Your task to perform on an android device: Open Wikipedia Image 0: 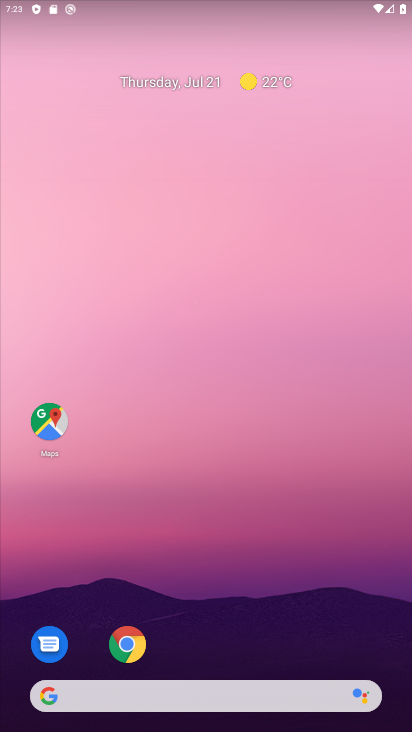
Step 0: drag from (330, 560) to (377, 161)
Your task to perform on an android device: Open Wikipedia Image 1: 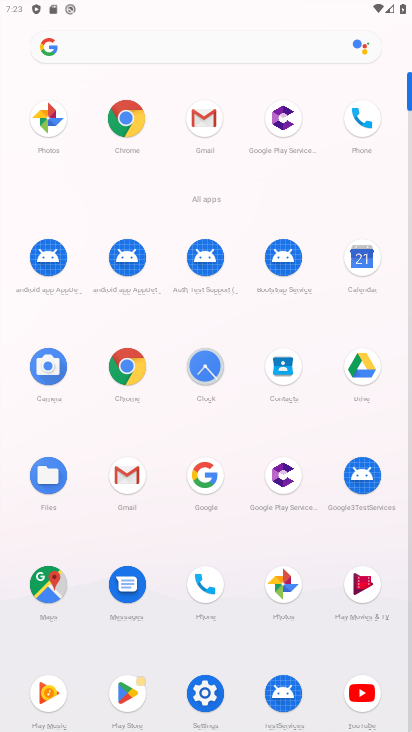
Step 1: click (127, 371)
Your task to perform on an android device: Open Wikipedia Image 2: 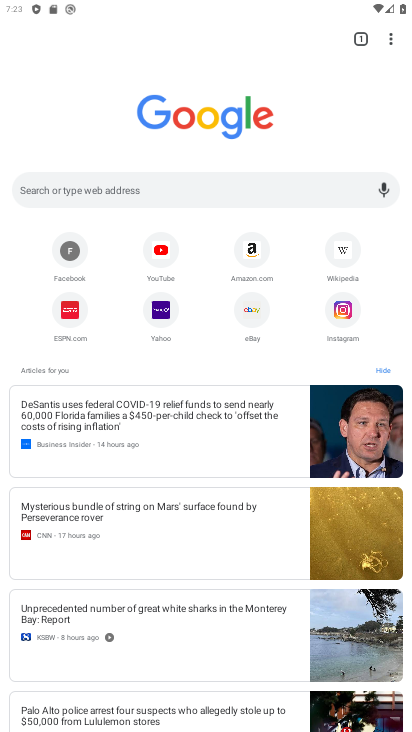
Step 2: click (181, 186)
Your task to perform on an android device: Open Wikipedia Image 3: 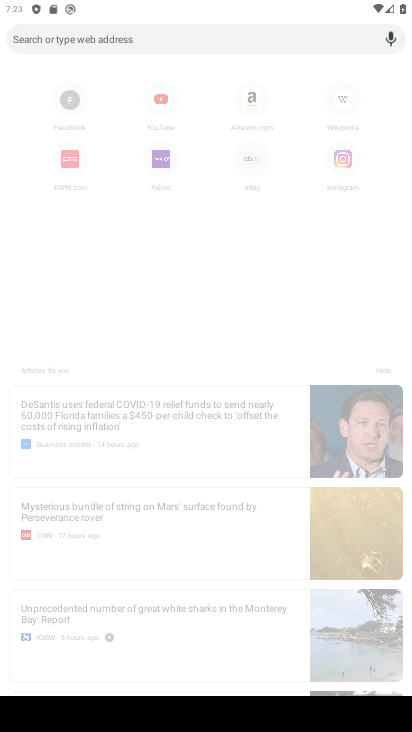
Step 3: type "wikipedia"
Your task to perform on an android device: Open Wikipedia Image 4: 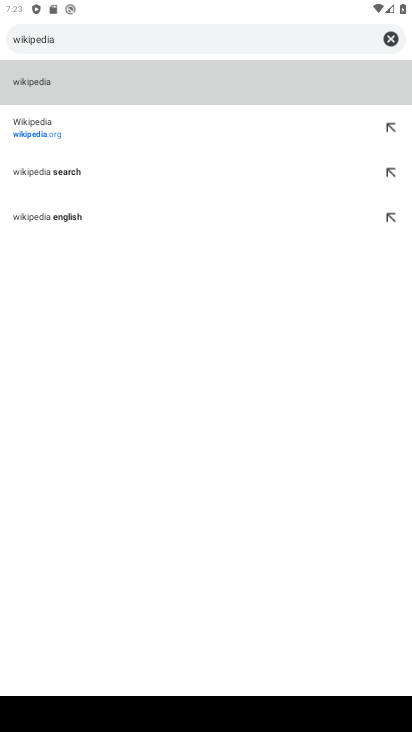
Step 4: click (250, 83)
Your task to perform on an android device: Open Wikipedia Image 5: 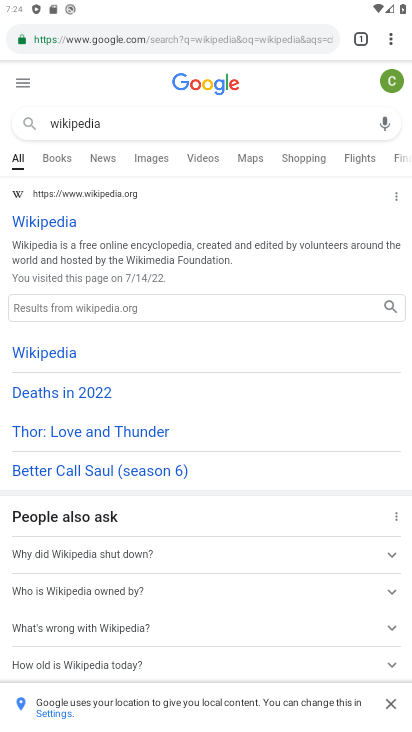
Step 5: task complete